Your task to perform on an android device: turn pop-ups on in chrome Image 0: 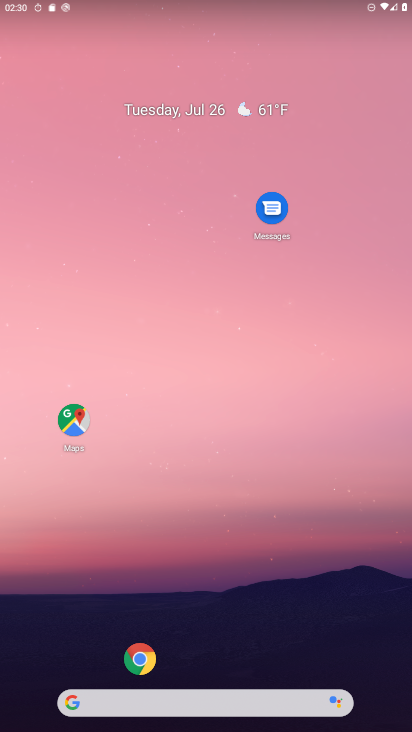
Step 0: click (132, 649)
Your task to perform on an android device: turn pop-ups on in chrome Image 1: 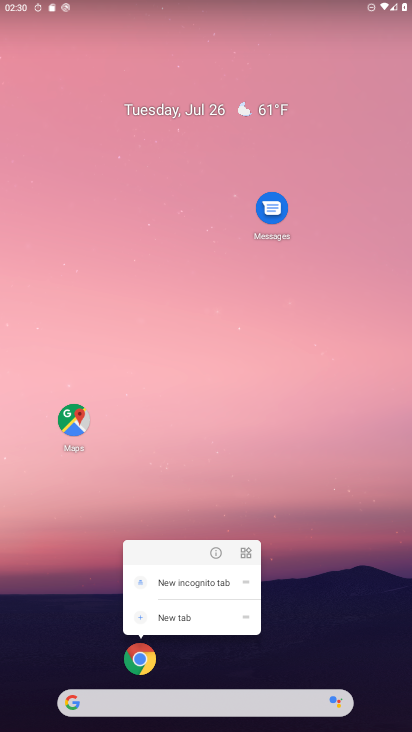
Step 1: click (141, 661)
Your task to perform on an android device: turn pop-ups on in chrome Image 2: 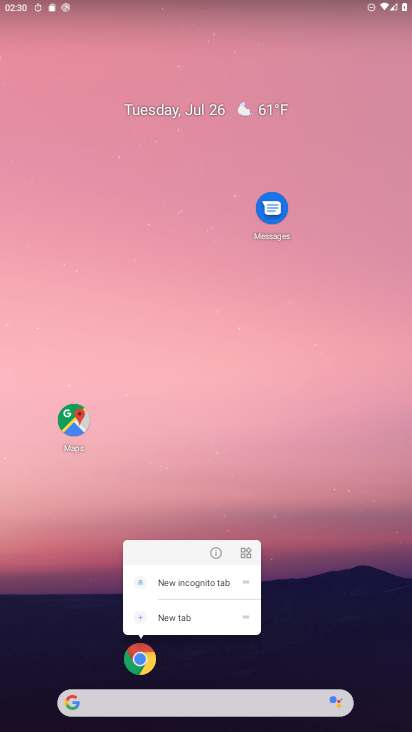
Step 2: click (141, 661)
Your task to perform on an android device: turn pop-ups on in chrome Image 3: 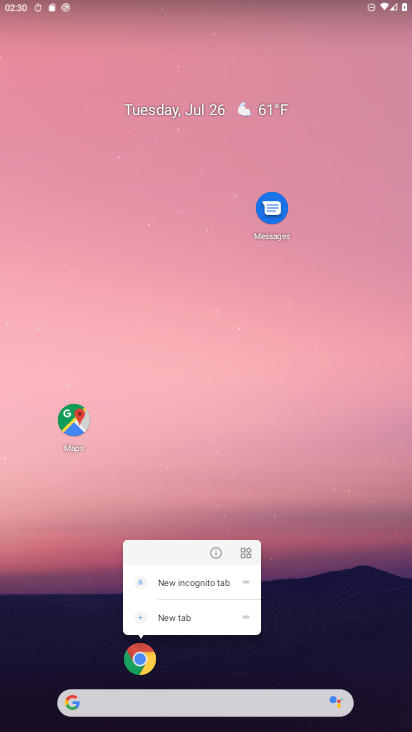
Step 3: click (135, 657)
Your task to perform on an android device: turn pop-ups on in chrome Image 4: 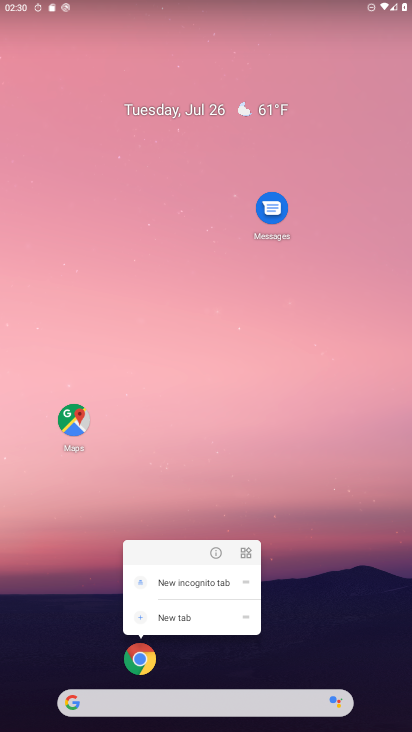
Step 4: click (135, 657)
Your task to perform on an android device: turn pop-ups on in chrome Image 5: 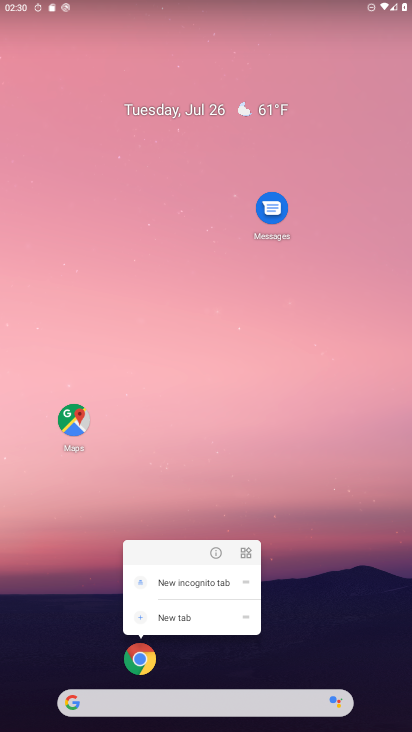
Step 5: task complete